Your task to perform on an android device: Search for "bose soundlink mini" on ebay.com, select the first entry, add it to the cart, then select checkout. Image 0: 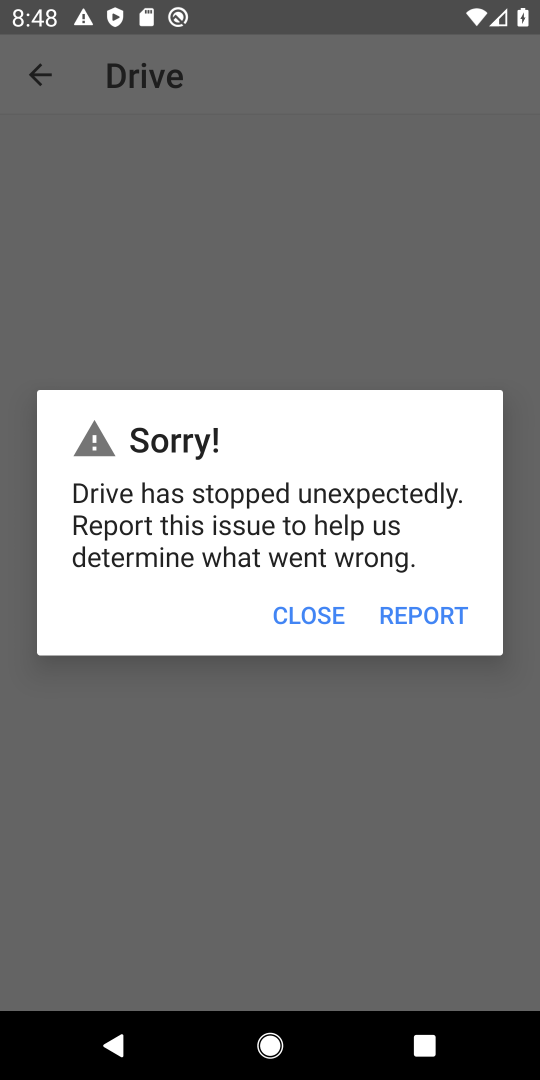
Step 0: press home button
Your task to perform on an android device: Search for "bose soundlink mini" on ebay.com, select the first entry, add it to the cart, then select checkout. Image 1: 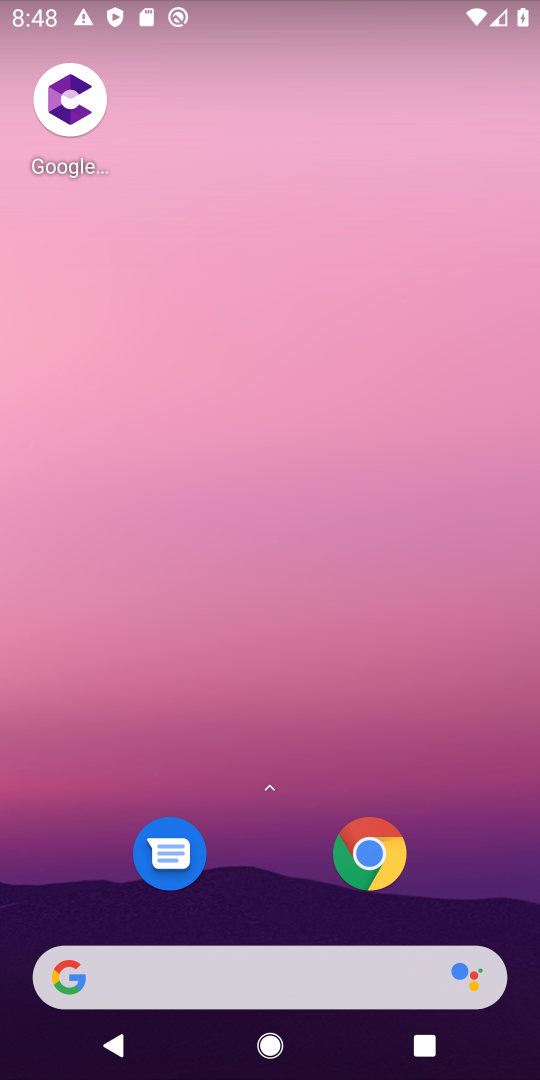
Step 1: click (314, 962)
Your task to perform on an android device: Search for "bose soundlink mini" on ebay.com, select the first entry, add it to the cart, then select checkout. Image 2: 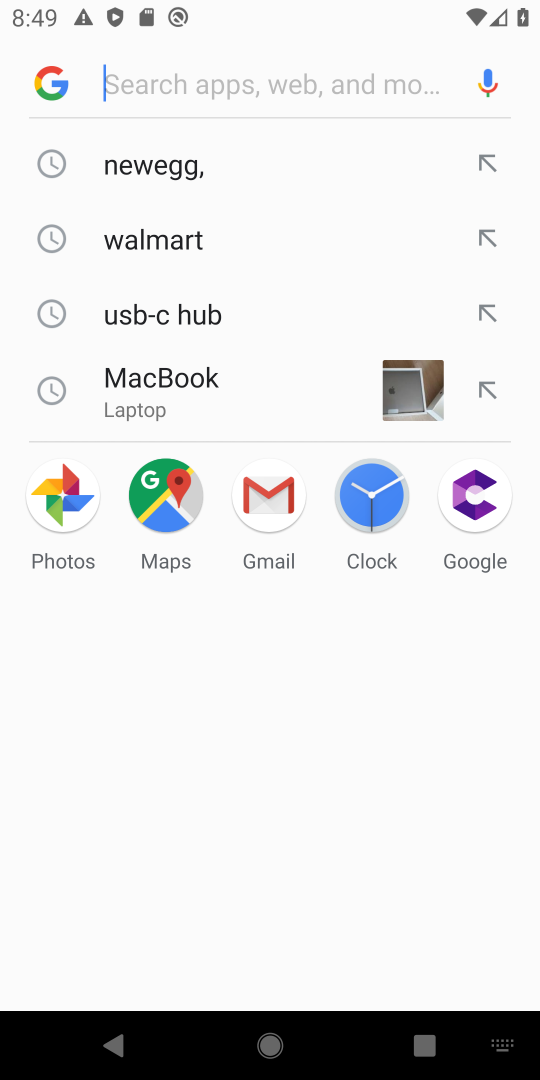
Step 2: type "ebay"
Your task to perform on an android device: Search for "bose soundlink mini" on ebay.com, select the first entry, add it to the cart, then select checkout. Image 3: 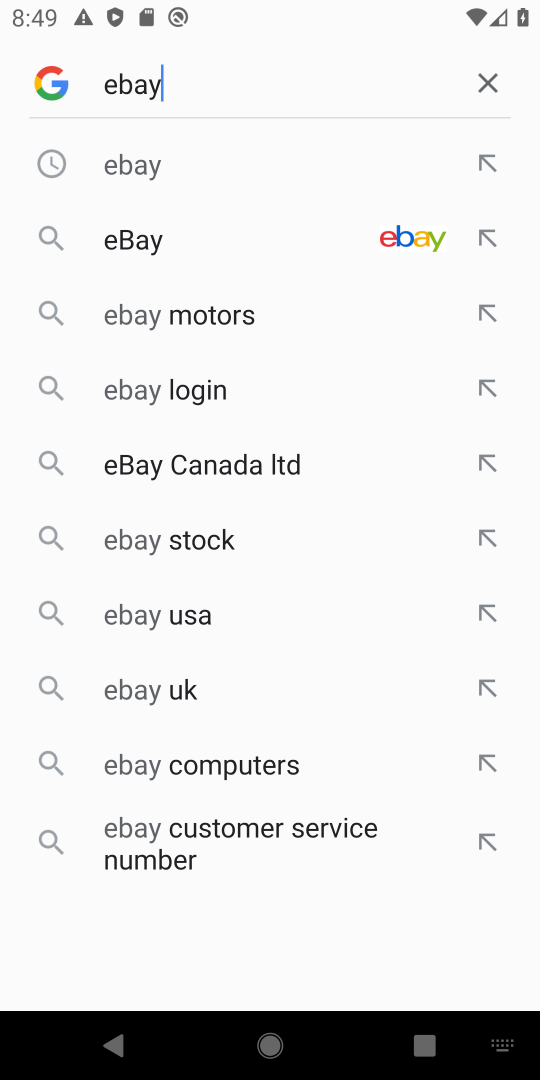
Step 3: click (115, 181)
Your task to perform on an android device: Search for "bose soundlink mini" on ebay.com, select the first entry, add it to the cart, then select checkout. Image 4: 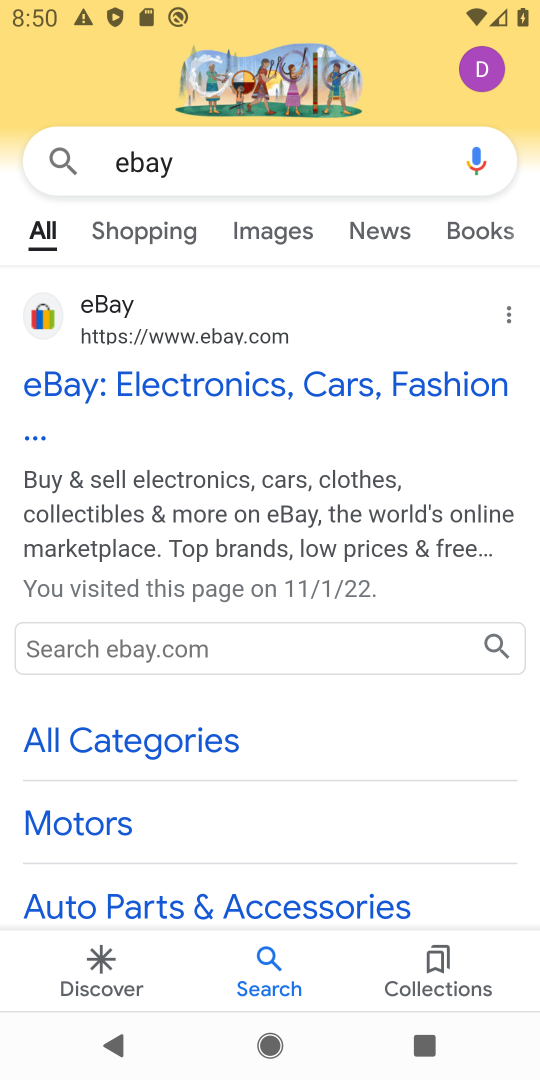
Step 4: click (138, 396)
Your task to perform on an android device: Search for "bose soundlink mini" on ebay.com, select the first entry, add it to the cart, then select checkout. Image 5: 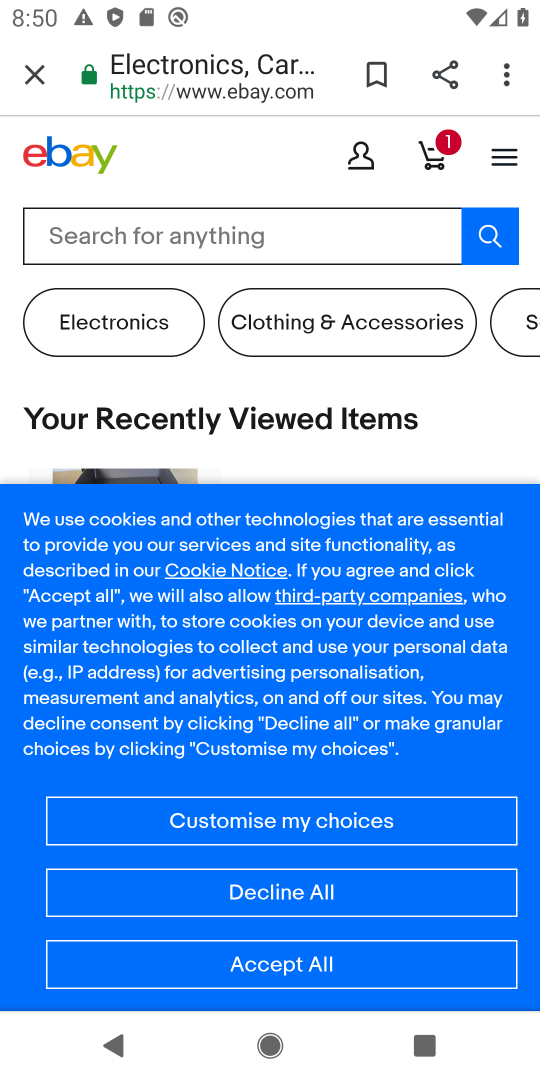
Step 5: click (167, 253)
Your task to perform on an android device: Search for "bose soundlink mini" on ebay.com, select the first entry, add it to the cart, then select checkout. Image 6: 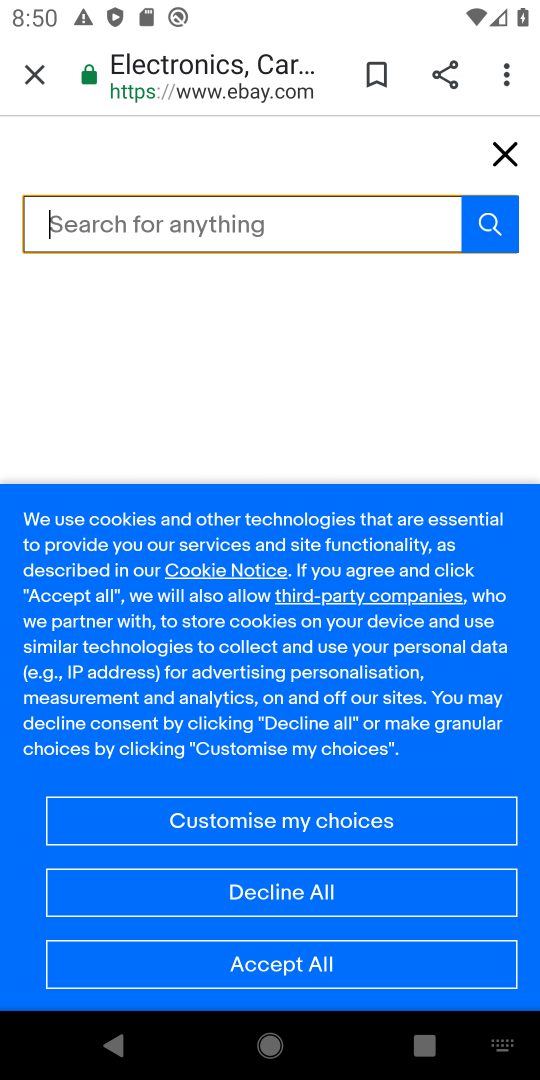
Step 6: type "bose soundlink"
Your task to perform on an android device: Search for "bose soundlink mini" on ebay.com, select the first entry, add it to the cart, then select checkout. Image 7: 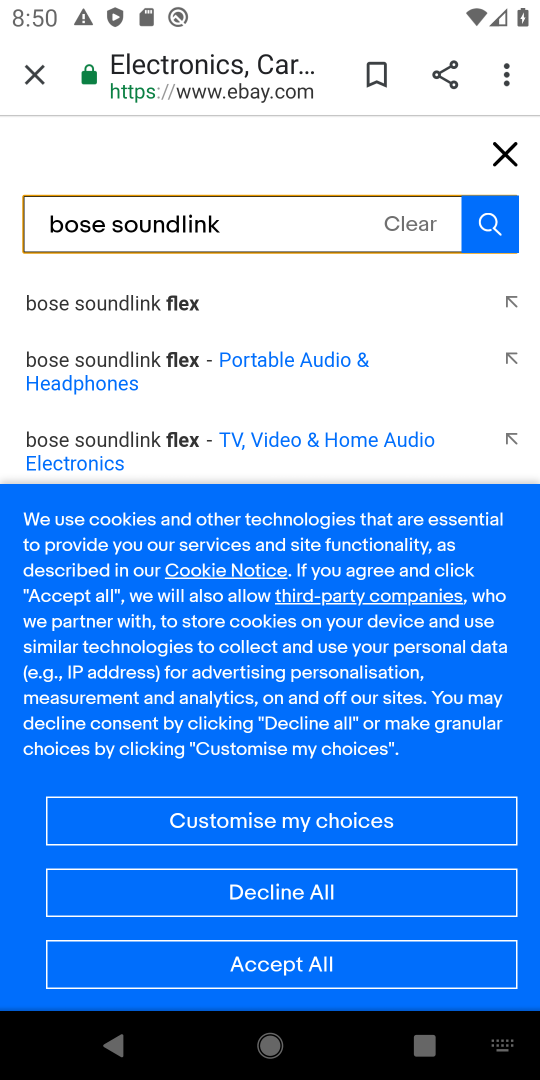
Step 7: click (101, 386)
Your task to perform on an android device: Search for "bose soundlink mini" on ebay.com, select the first entry, add it to the cart, then select checkout. Image 8: 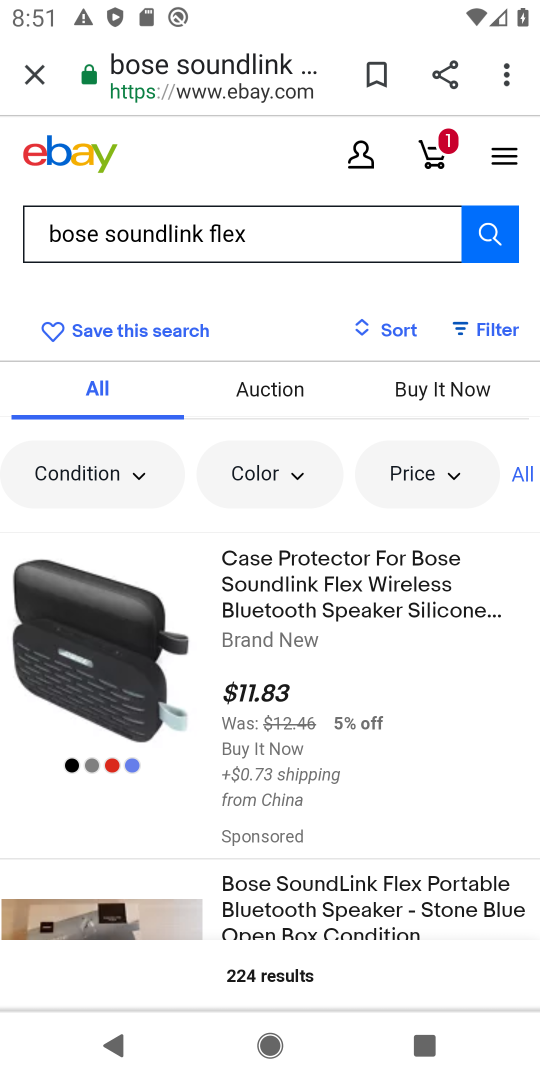
Step 8: task complete